Your task to perform on an android device: Is it going to rain today? Image 0: 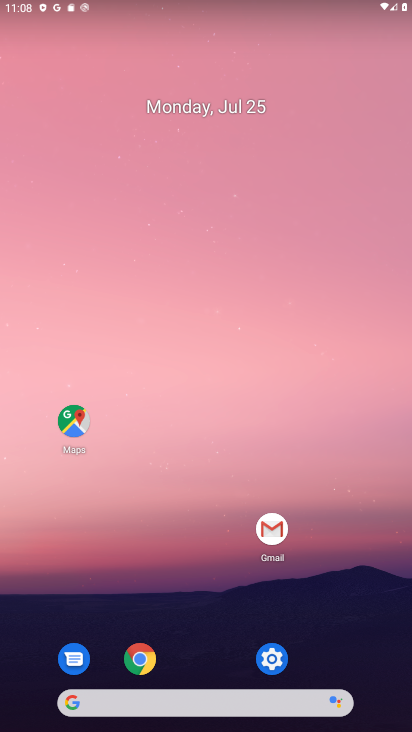
Step 0: click (125, 704)
Your task to perform on an android device: Is it going to rain today? Image 1: 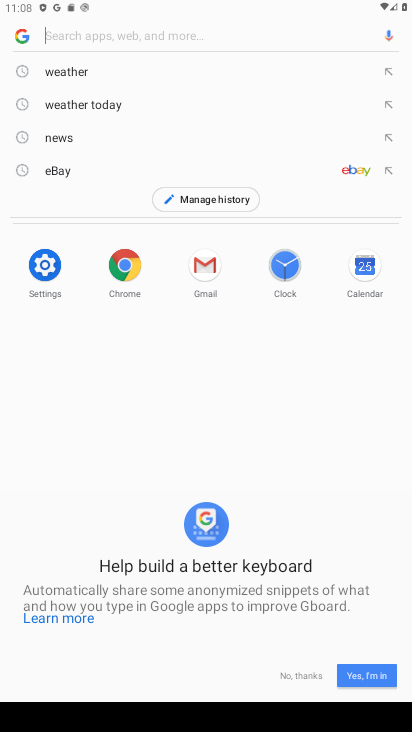
Step 1: click (279, 674)
Your task to perform on an android device: Is it going to rain today? Image 2: 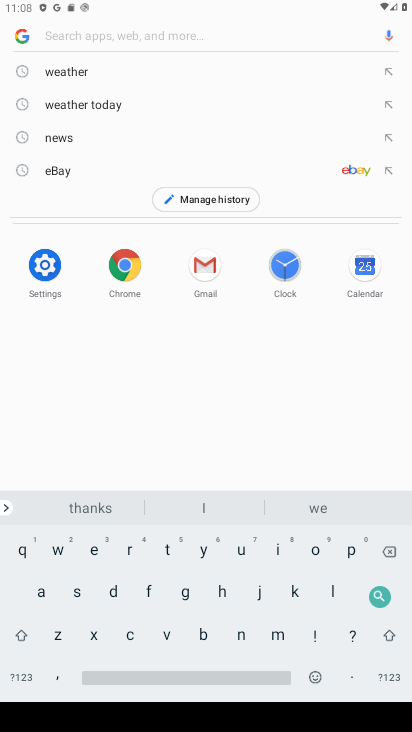
Step 2: click (281, 552)
Your task to perform on an android device: Is it going to rain today? Image 3: 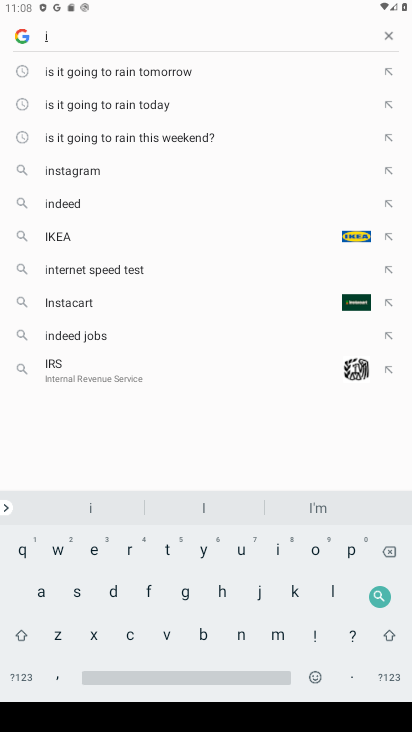
Step 3: click (78, 586)
Your task to perform on an android device: Is it going to rain today? Image 4: 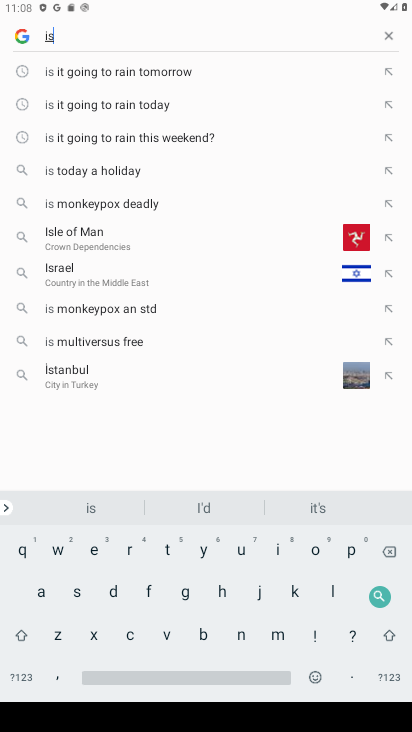
Step 4: click (111, 107)
Your task to perform on an android device: Is it going to rain today? Image 5: 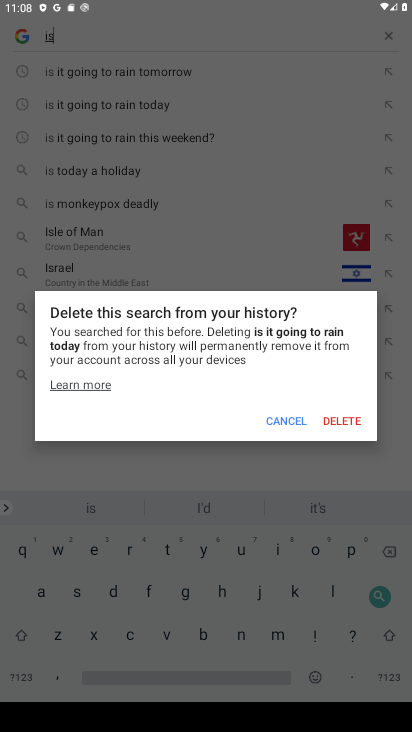
Step 5: click (286, 420)
Your task to perform on an android device: Is it going to rain today? Image 6: 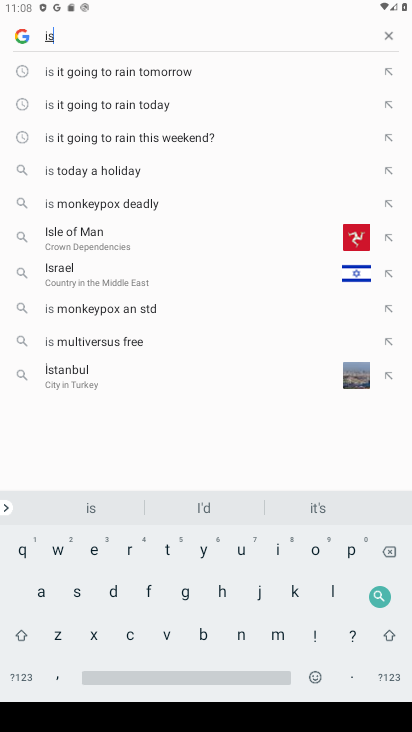
Step 6: click (114, 106)
Your task to perform on an android device: Is it going to rain today? Image 7: 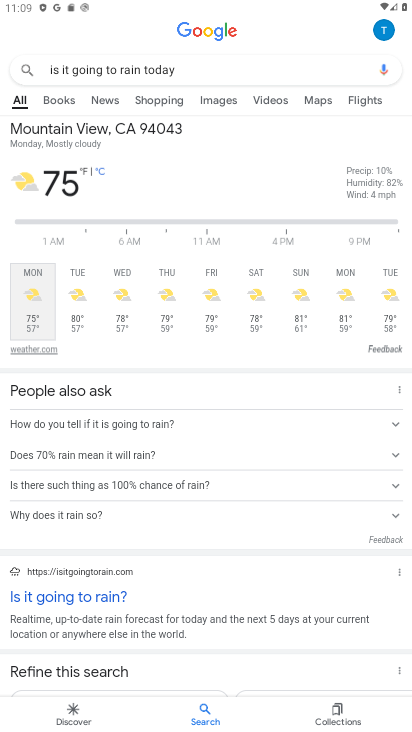
Step 7: task complete